Your task to perform on an android device: turn off data saver in the chrome app Image 0: 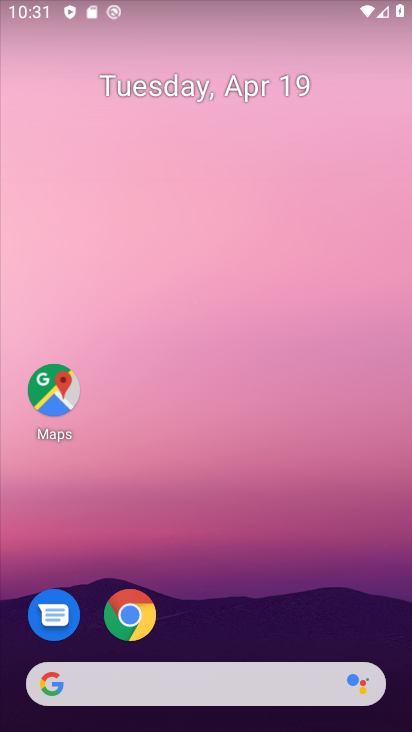
Step 0: click (138, 603)
Your task to perform on an android device: turn off data saver in the chrome app Image 1: 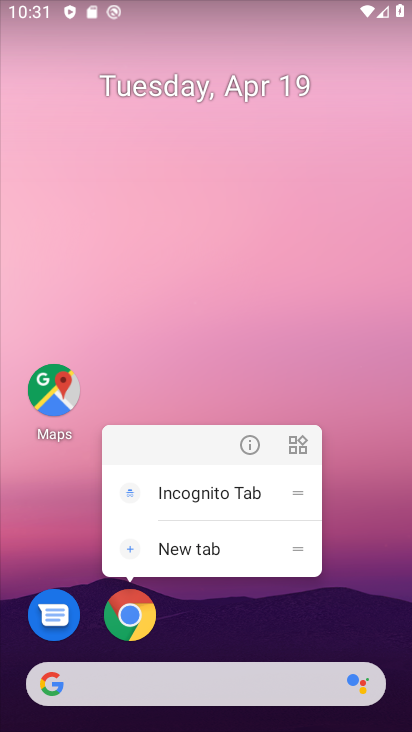
Step 1: click (138, 603)
Your task to perform on an android device: turn off data saver in the chrome app Image 2: 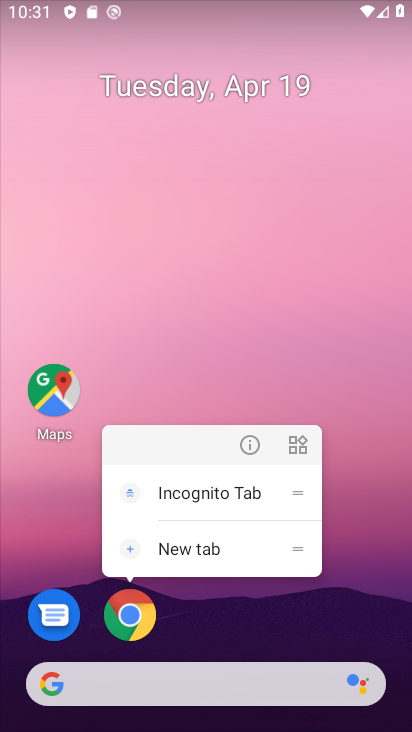
Step 2: click (138, 603)
Your task to perform on an android device: turn off data saver in the chrome app Image 3: 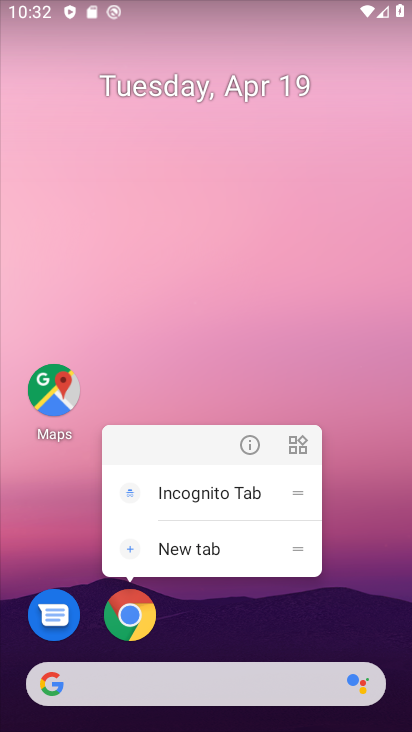
Step 3: click (138, 603)
Your task to perform on an android device: turn off data saver in the chrome app Image 4: 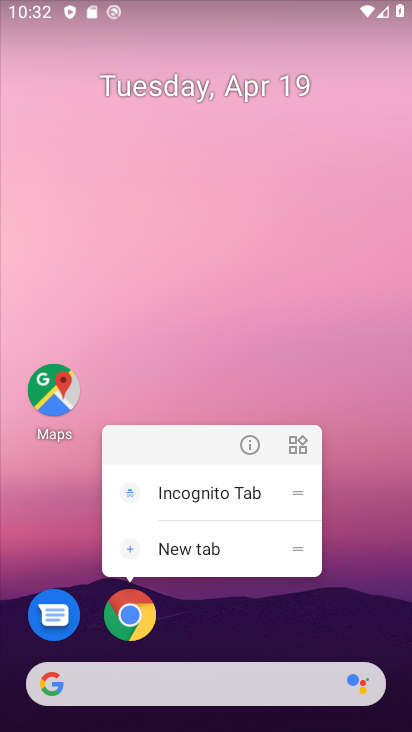
Step 4: click (138, 603)
Your task to perform on an android device: turn off data saver in the chrome app Image 5: 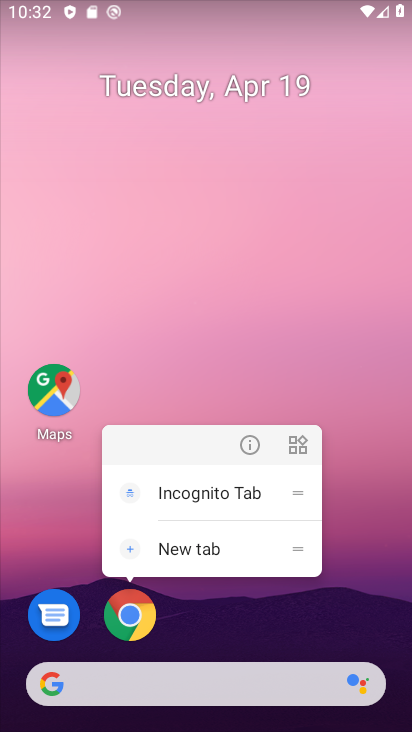
Step 5: click (138, 603)
Your task to perform on an android device: turn off data saver in the chrome app Image 6: 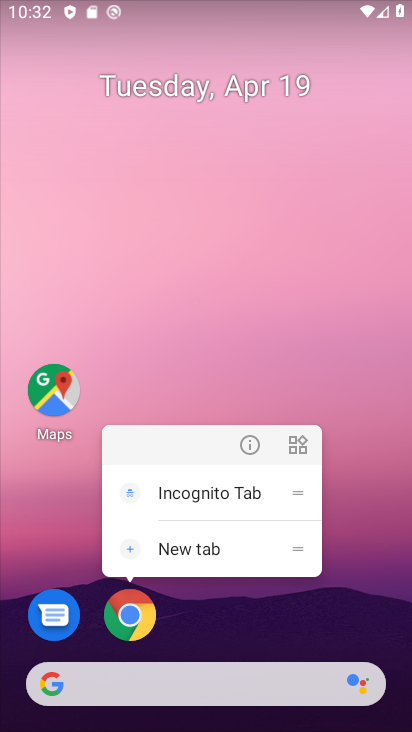
Step 6: click (138, 603)
Your task to perform on an android device: turn off data saver in the chrome app Image 7: 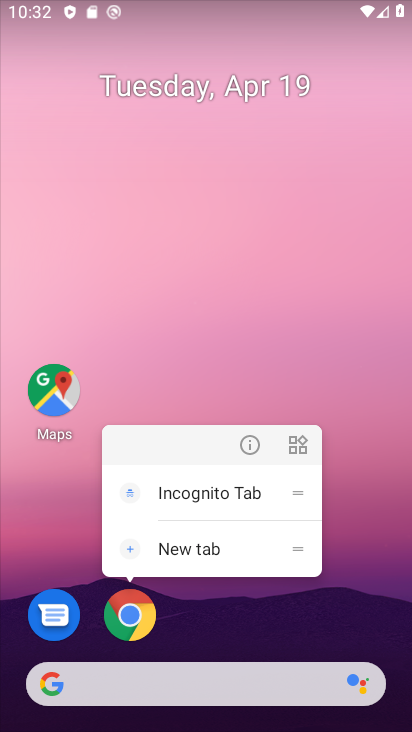
Step 7: click (138, 603)
Your task to perform on an android device: turn off data saver in the chrome app Image 8: 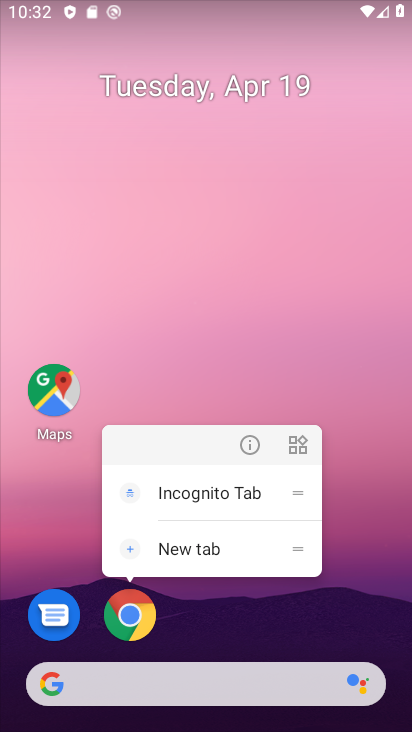
Step 8: click (138, 603)
Your task to perform on an android device: turn off data saver in the chrome app Image 9: 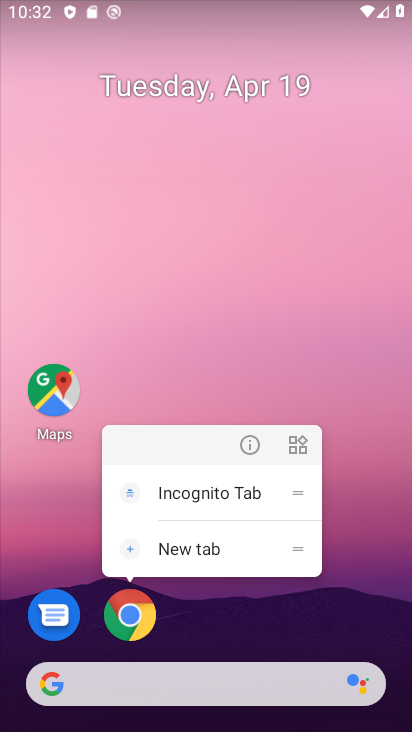
Step 9: click (138, 603)
Your task to perform on an android device: turn off data saver in the chrome app Image 10: 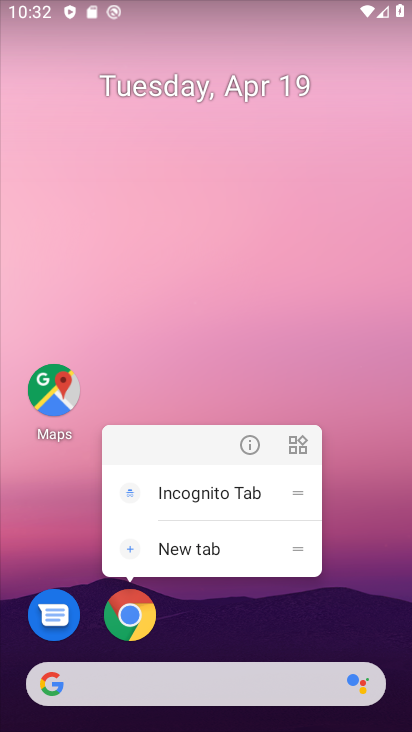
Step 10: click (138, 603)
Your task to perform on an android device: turn off data saver in the chrome app Image 11: 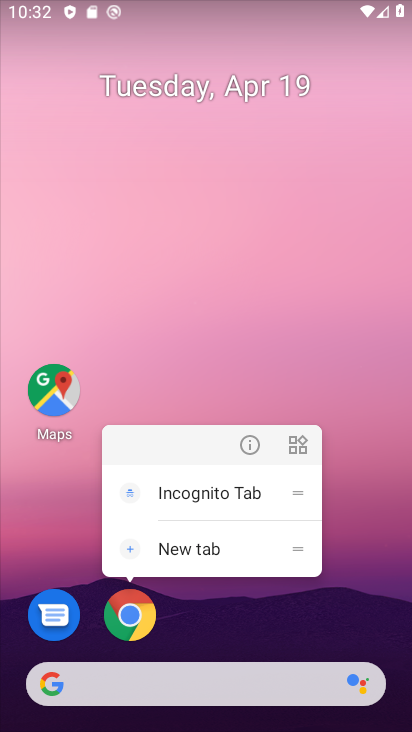
Step 11: click (138, 603)
Your task to perform on an android device: turn off data saver in the chrome app Image 12: 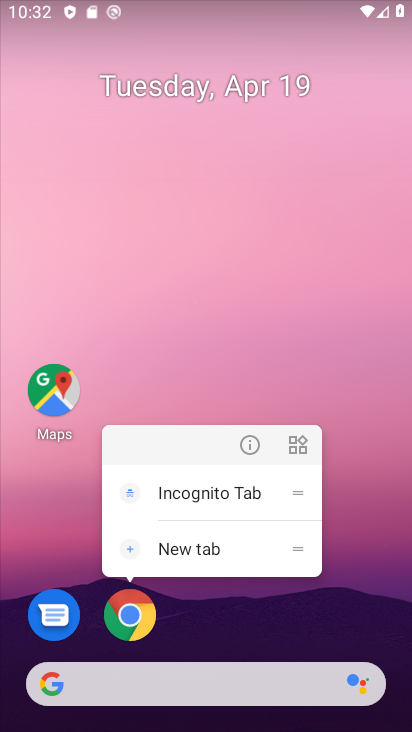
Step 12: click (138, 603)
Your task to perform on an android device: turn off data saver in the chrome app Image 13: 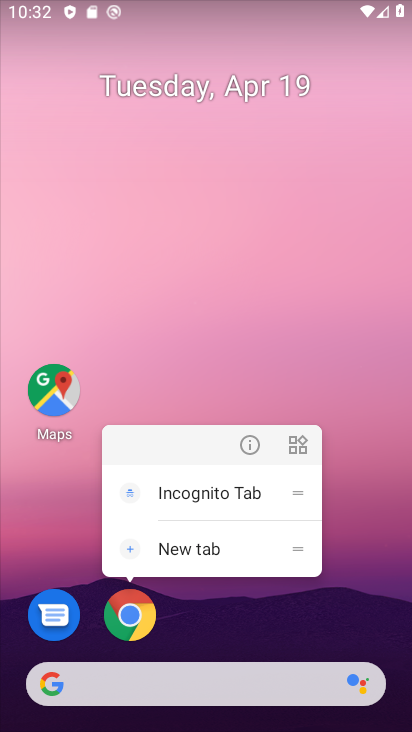
Step 13: click (138, 603)
Your task to perform on an android device: turn off data saver in the chrome app Image 14: 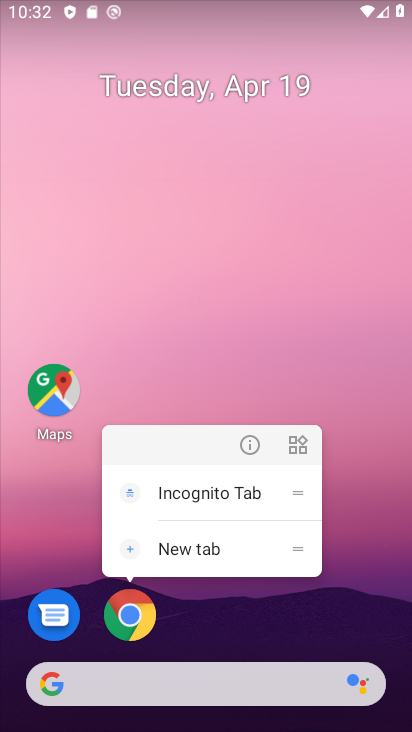
Step 14: click (138, 603)
Your task to perform on an android device: turn off data saver in the chrome app Image 15: 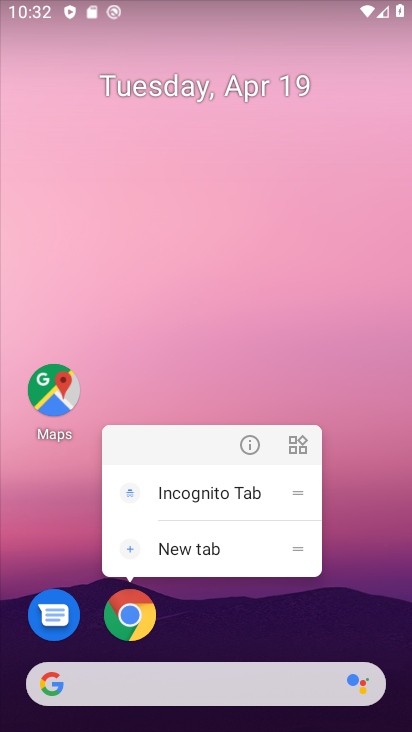
Step 15: click (138, 603)
Your task to perform on an android device: turn off data saver in the chrome app Image 16: 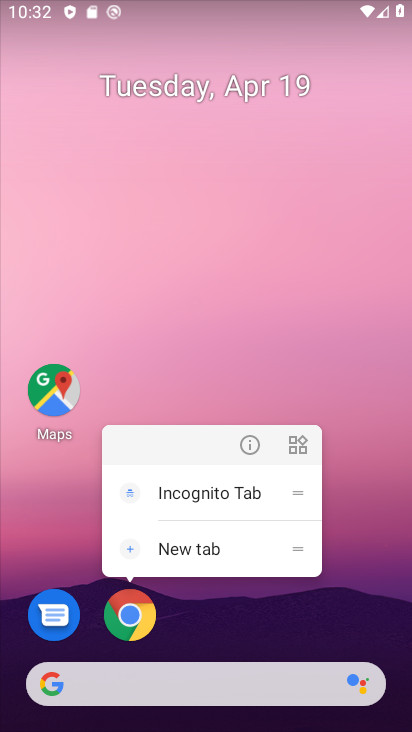
Step 16: click (148, 621)
Your task to perform on an android device: turn off data saver in the chrome app Image 17: 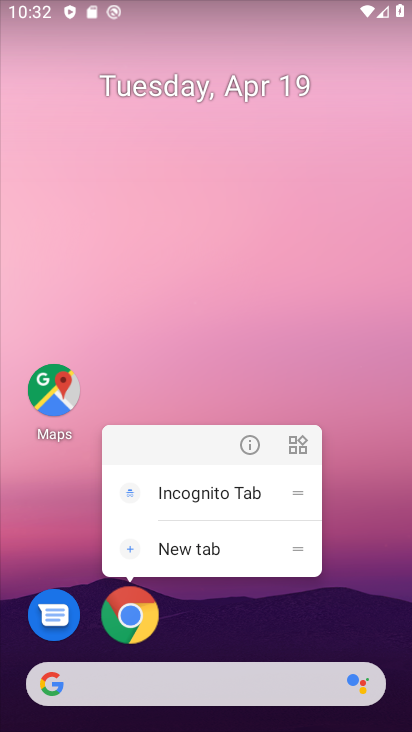
Step 17: click (148, 621)
Your task to perform on an android device: turn off data saver in the chrome app Image 18: 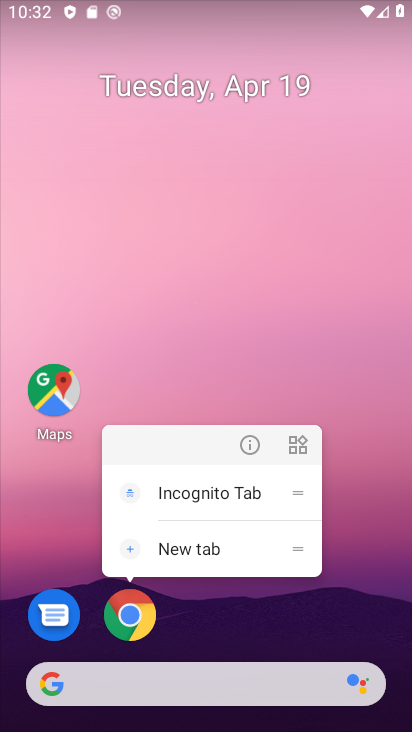
Step 18: click (148, 621)
Your task to perform on an android device: turn off data saver in the chrome app Image 19: 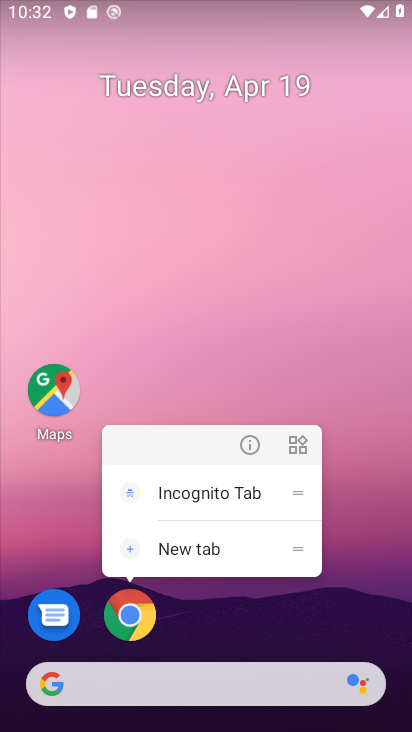
Step 19: click (123, 614)
Your task to perform on an android device: turn off data saver in the chrome app Image 20: 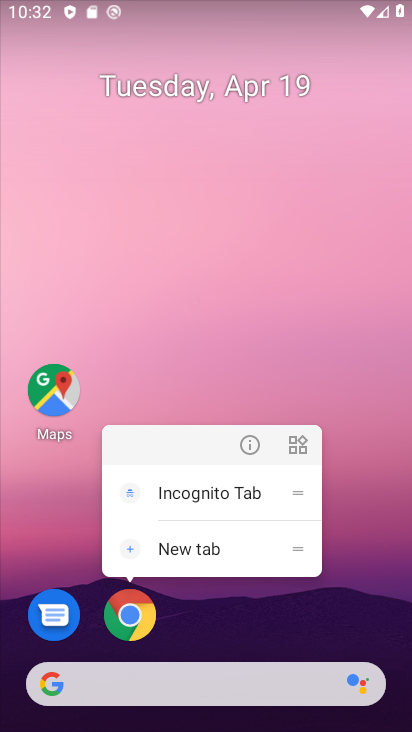
Step 20: click (123, 614)
Your task to perform on an android device: turn off data saver in the chrome app Image 21: 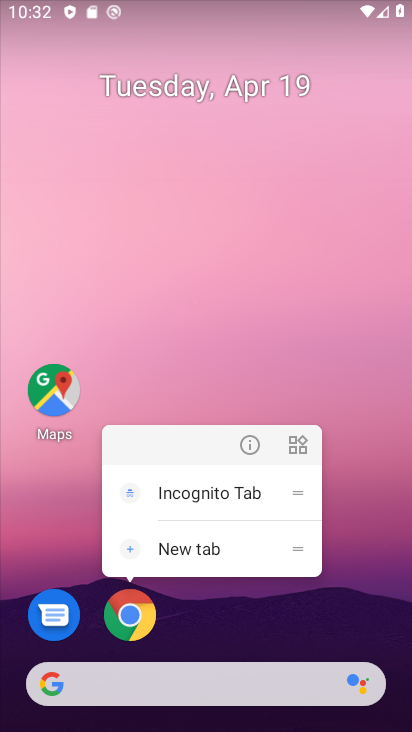
Step 21: click (124, 614)
Your task to perform on an android device: turn off data saver in the chrome app Image 22: 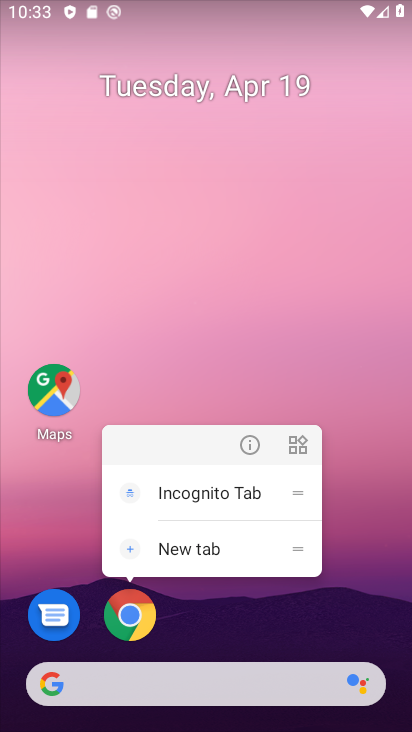
Step 22: click (124, 614)
Your task to perform on an android device: turn off data saver in the chrome app Image 23: 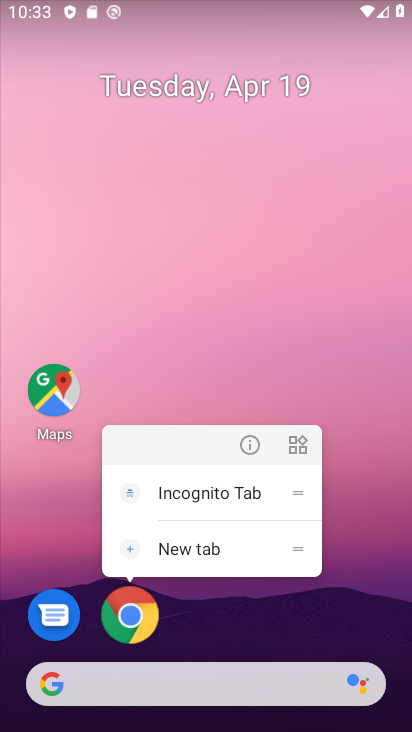
Step 23: click (124, 614)
Your task to perform on an android device: turn off data saver in the chrome app Image 24: 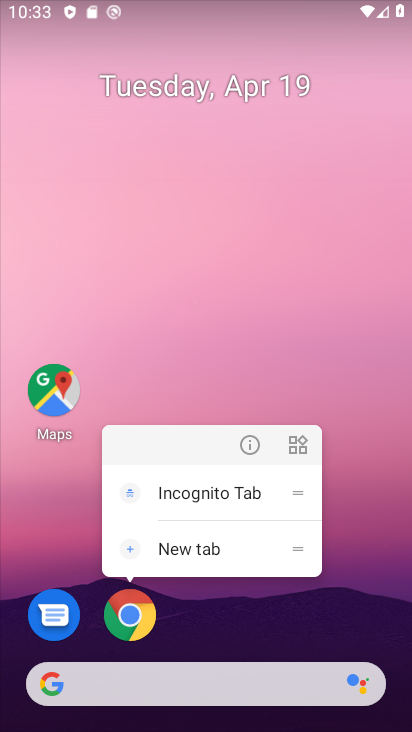
Step 24: click (124, 614)
Your task to perform on an android device: turn off data saver in the chrome app Image 25: 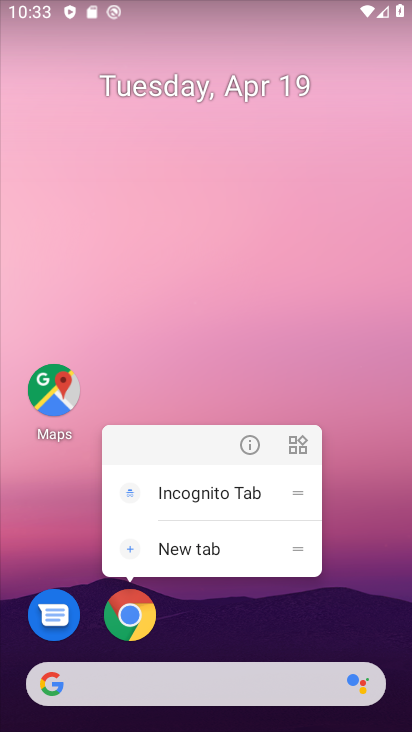
Step 25: click (124, 614)
Your task to perform on an android device: turn off data saver in the chrome app Image 26: 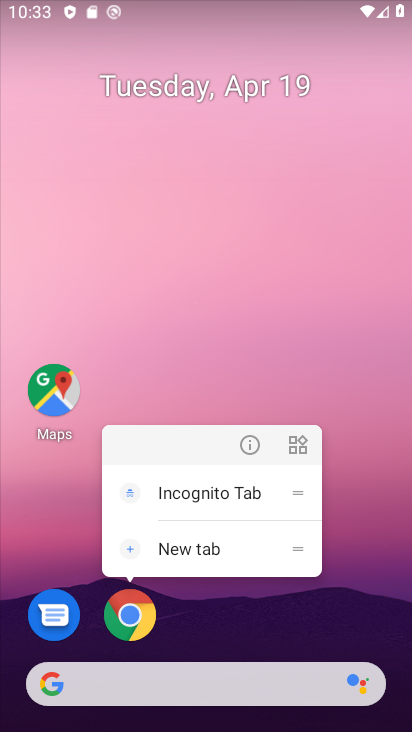
Step 26: click (124, 614)
Your task to perform on an android device: turn off data saver in the chrome app Image 27: 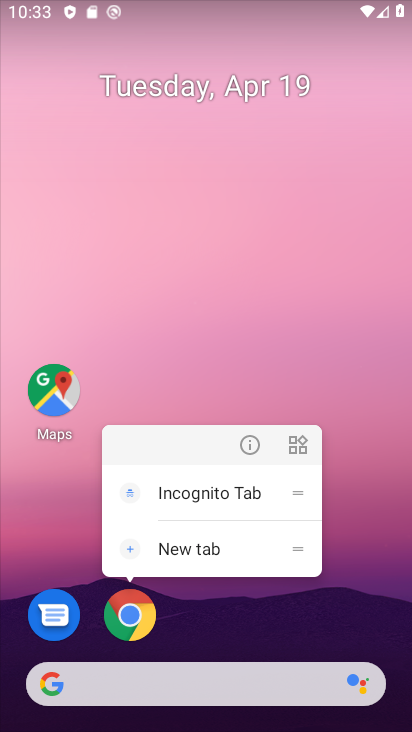
Step 27: click (124, 614)
Your task to perform on an android device: turn off data saver in the chrome app Image 28: 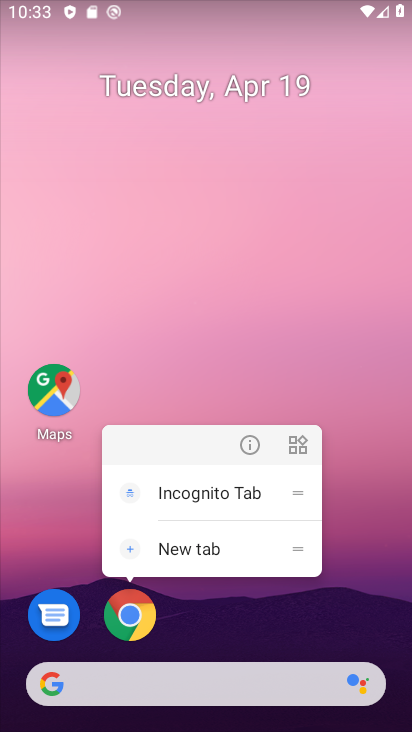
Step 28: click (124, 614)
Your task to perform on an android device: turn off data saver in the chrome app Image 29: 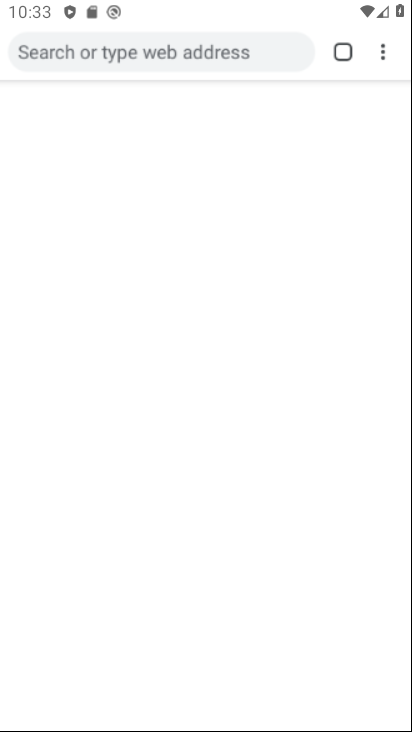
Step 29: click (124, 614)
Your task to perform on an android device: turn off data saver in the chrome app Image 30: 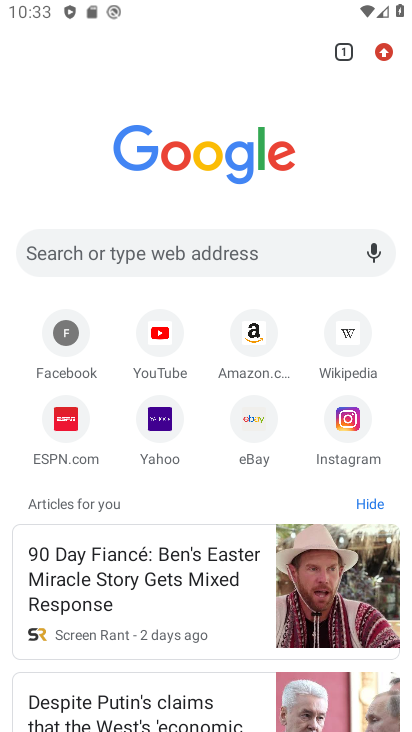
Step 30: click (133, 611)
Your task to perform on an android device: turn off data saver in the chrome app Image 31: 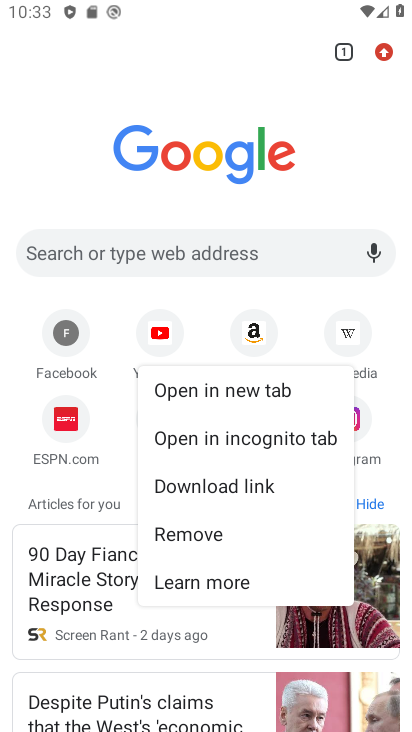
Step 31: task complete